Your task to perform on an android device: turn on data saver in the chrome app Image 0: 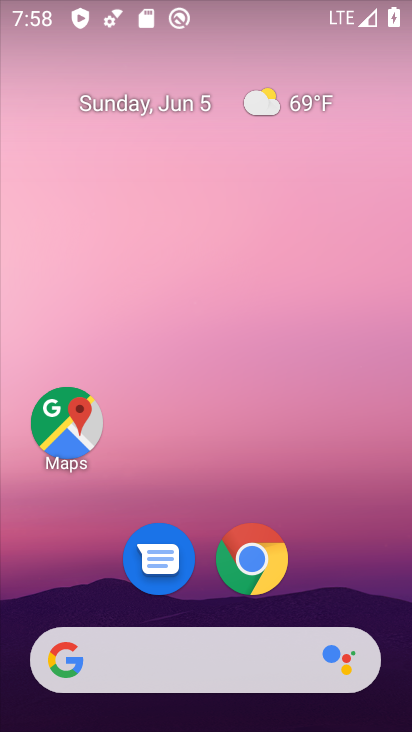
Step 0: click (247, 558)
Your task to perform on an android device: turn on data saver in the chrome app Image 1: 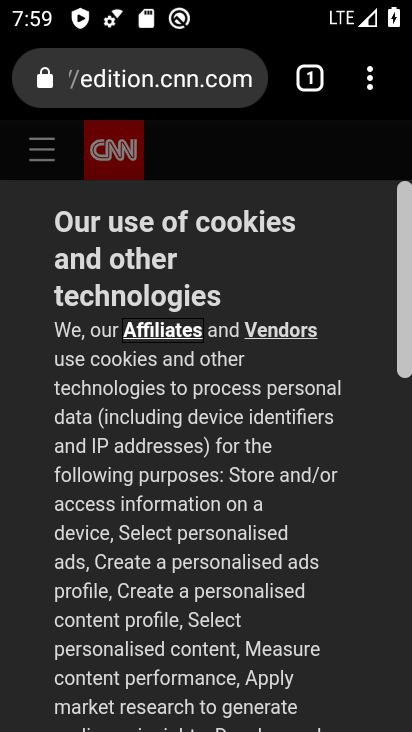
Step 1: click (371, 79)
Your task to perform on an android device: turn on data saver in the chrome app Image 2: 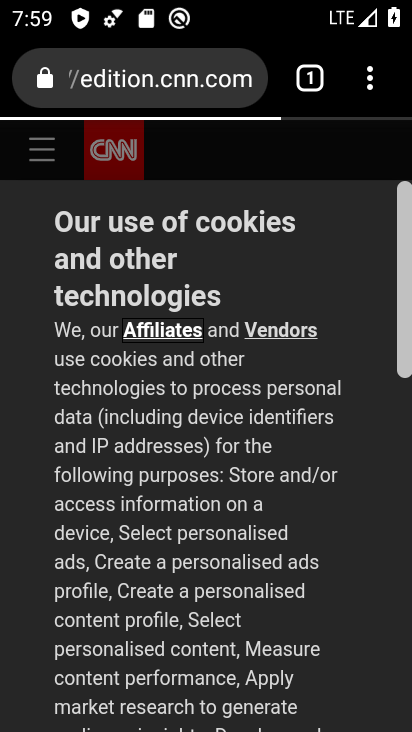
Step 2: drag from (376, 72) to (196, 600)
Your task to perform on an android device: turn on data saver in the chrome app Image 3: 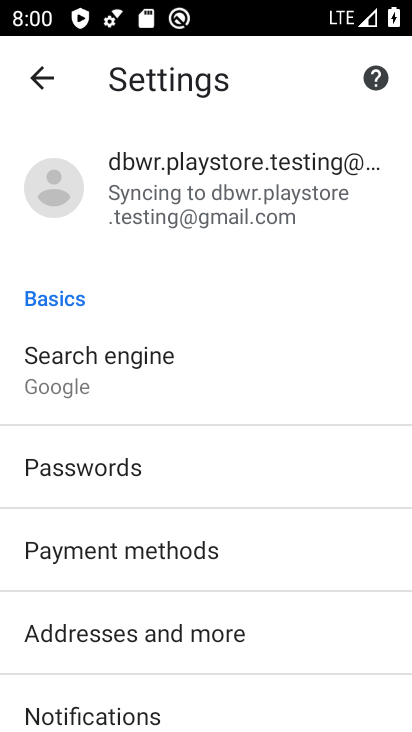
Step 3: drag from (220, 613) to (213, 189)
Your task to perform on an android device: turn on data saver in the chrome app Image 4: 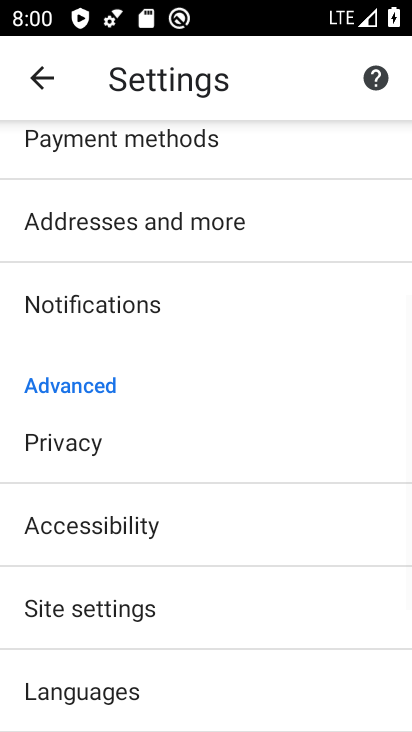
Step 4: drag from (178, 626) to (215, 166)
Your task to perform on an android device: turn on data saver in the chrome app Image 5: 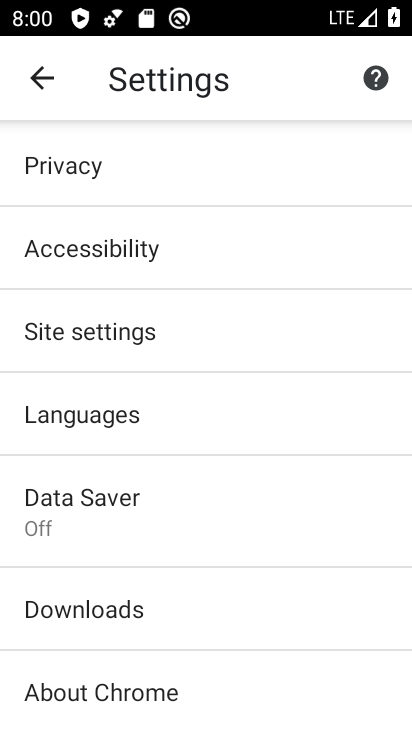
Step 5: click (130, 507)
Your task to perform on an android device: turn on data saver in the chrome app Image 6: 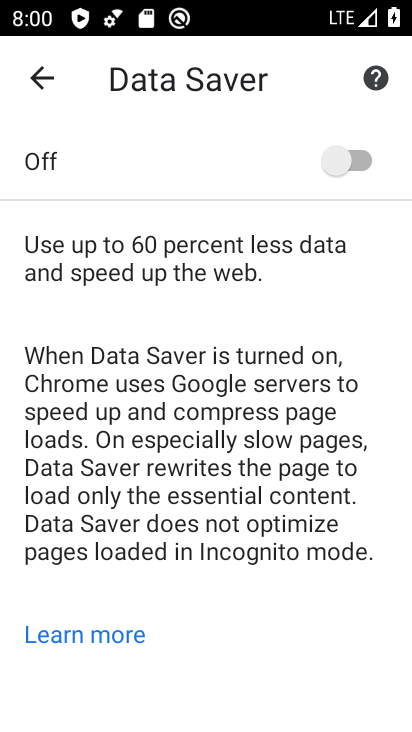
Step 6: click (358, 163)
Your task to perform on an android device: turn on data saver in the chrome app Image 7: 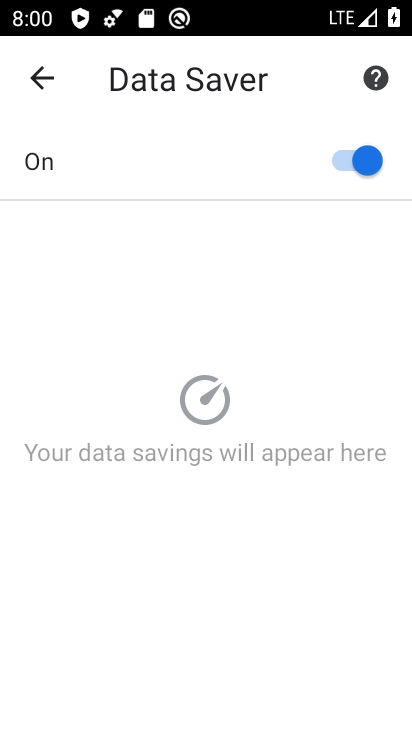
Step 7: task complete